Your task to perform on an android device: Go to location settings Image 0: 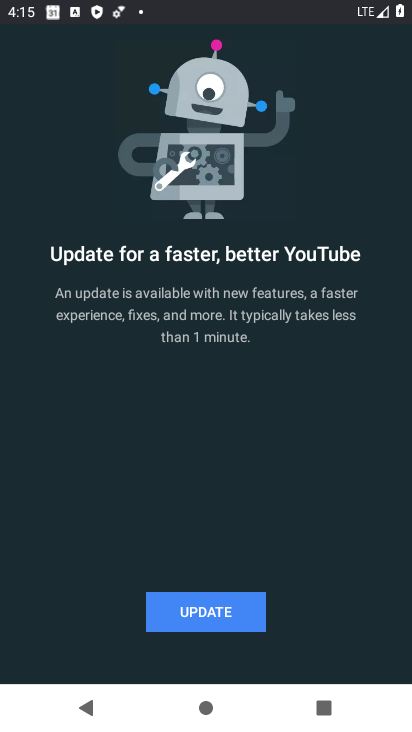
Step 0: press home button
Your task to perform on an android device: Go to location settings Image 1: 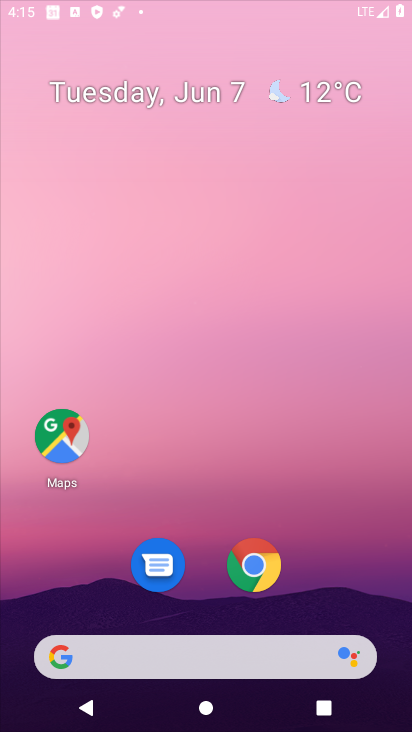
Step 1: drag from (302, 665) to (239, 75)
Your task to perform on an android device: Go to location settings Image 2: 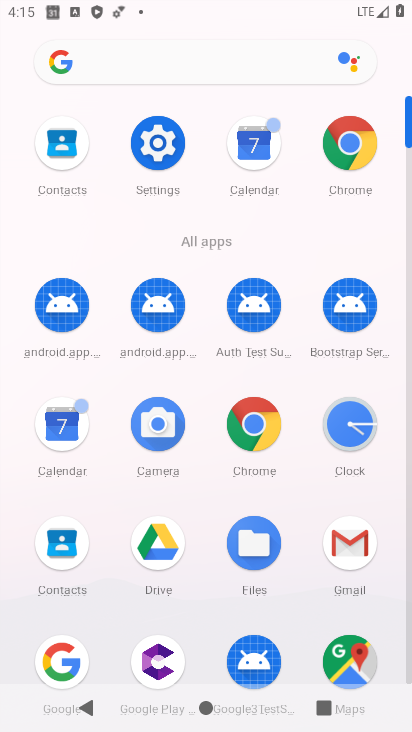
Step 2: click (167, 136)
Your task to perform on an android device: Go to location settings Image 3: 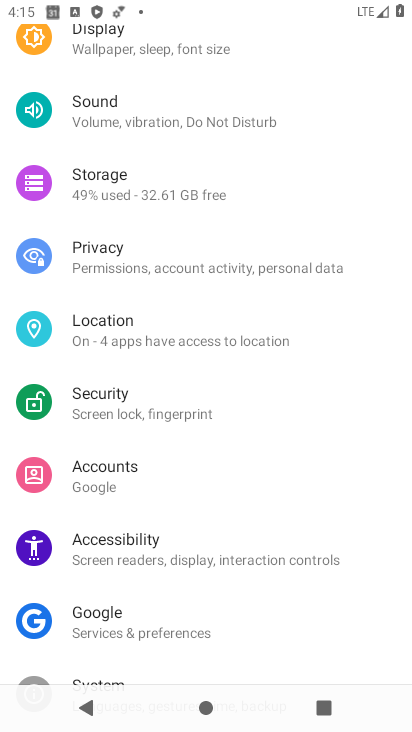
Step 3: click (138, 339)
Your task to perform on an android device: Go to location settings Image 4: 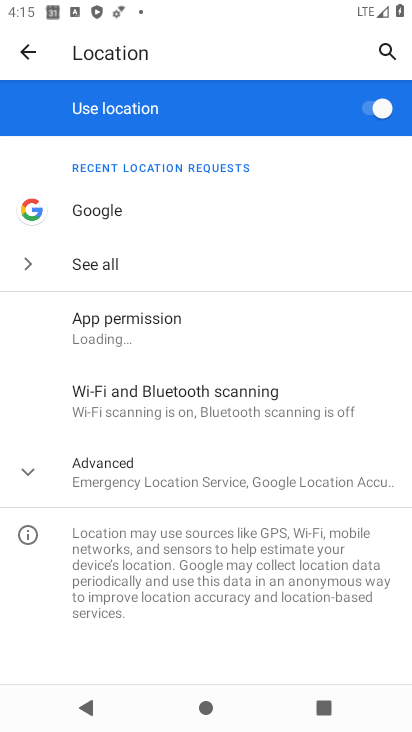
Step 4: task complete